Your task to perform on an android device: Open the map Image 0: 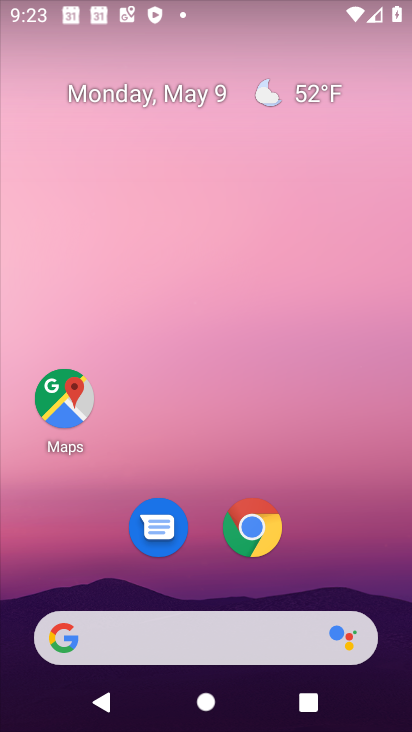
Step 0: click (63, 398)
Your task to perform on an android device: Open the map Image 1: 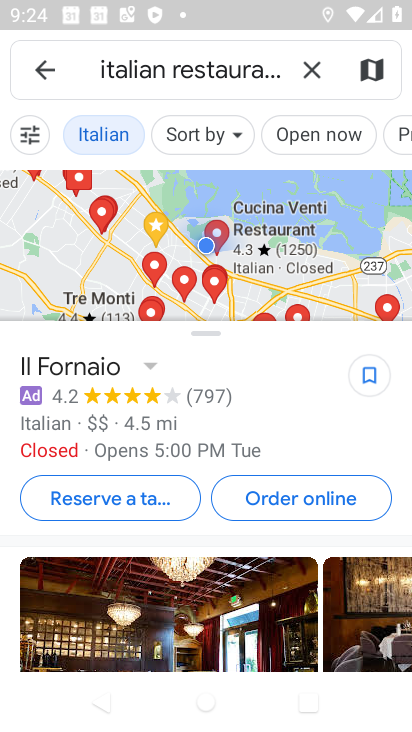
Step 1: task complete